Your task to perform on an android device: toggle pop-ups in chrome Image 0: 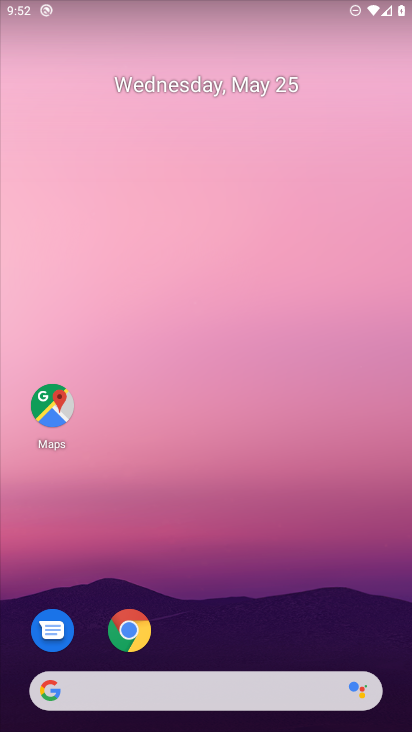
Step 0: click (139, 642)
Your task to perform on an android device: toggle pop-ups in chrome Image 1: 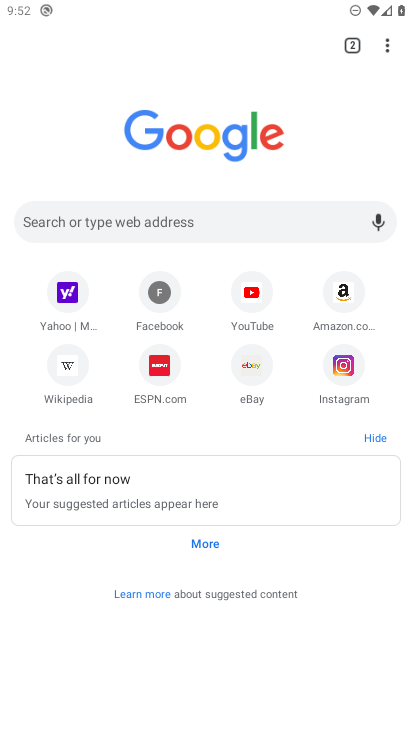
Step 1: click (383, 47)
Your task to perform on an android device: toggle pop-ups in chrome Image 2: 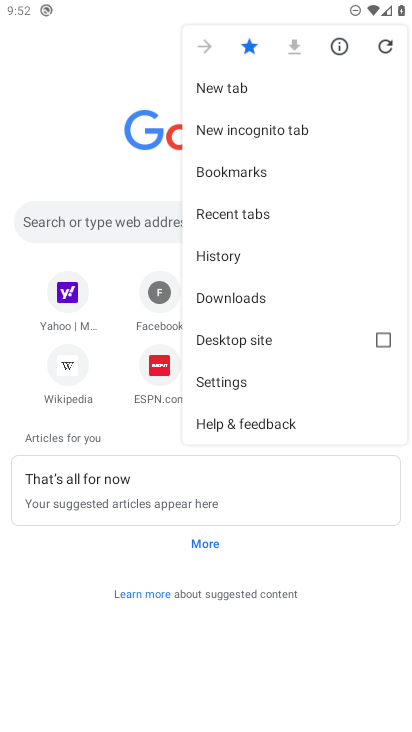
Step 2: click (227, 388)
Your task to perform on an android device: toggle pop-ups in chrome Image 3: 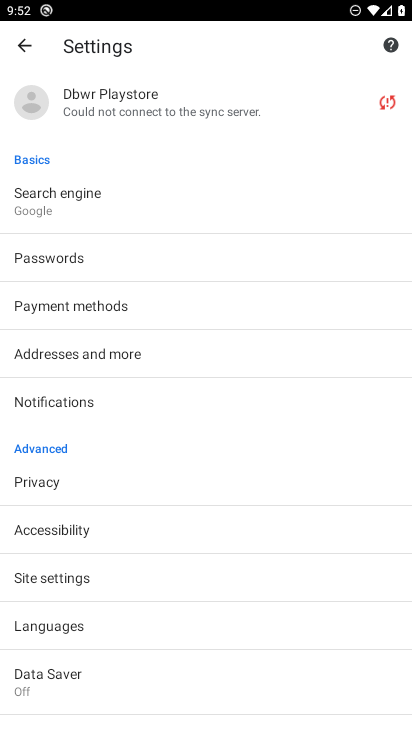
Step 3: drag from (74, 702) to (122, 226)
Your task to perform on an android device: toggle pop-ups in chrome Image 4: 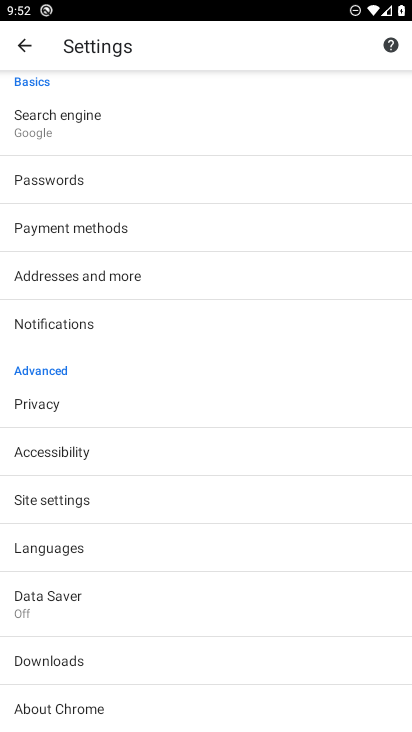
Step 4: click (64, 503)
Your task to perform on an android device: toggle pop-ups in chrome Image 5: 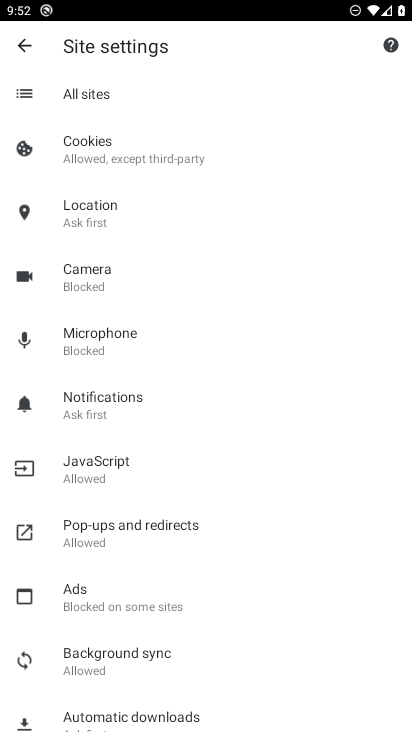
Step 5: click (92, 539)
Your task to perform on an android device: toggle pop-ups in chrome Image 6: 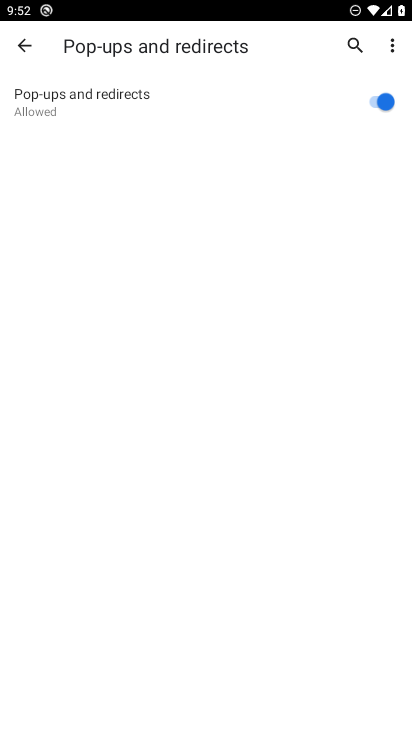
Step 6: click (377, 99)
Your task to perform on an android device: toggle pop-ups in chrome Image 7: 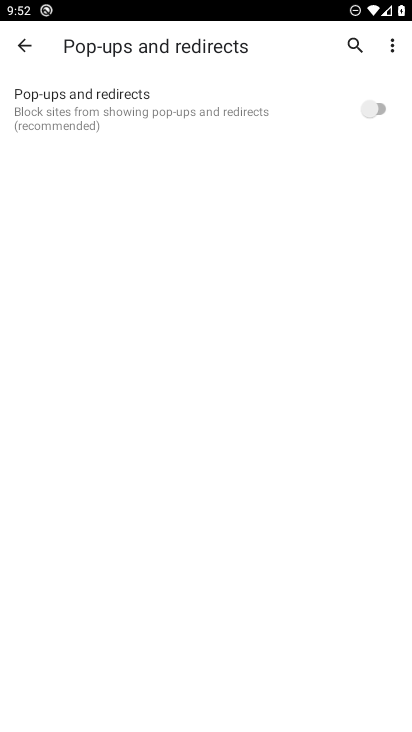
Step 7: task complete